Your task to perform on an android device: read, delete, or share a saved page in the chrome app Image 0: 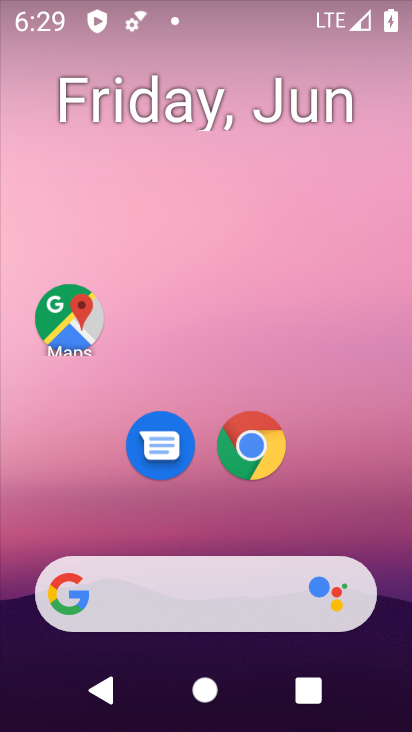
Step 0: click (239, 457)
Your task to perform on an android device: read, delete, or share a saved page in the chrome app Image 1: 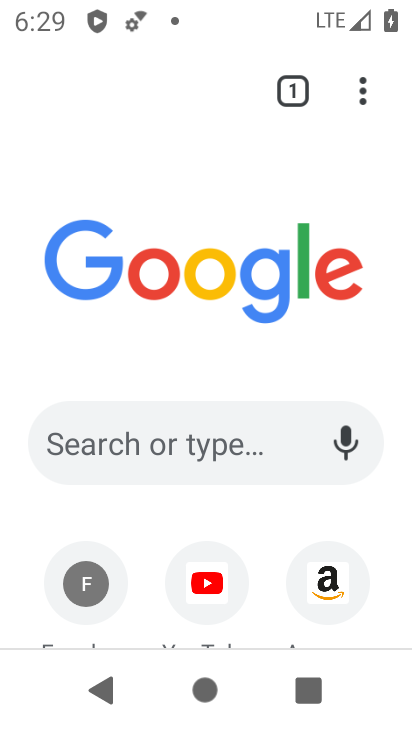
Step 1: click (357, 109)
Your task to perform on an android device: read, delete, or share a saved page in the chrome app Image 2: 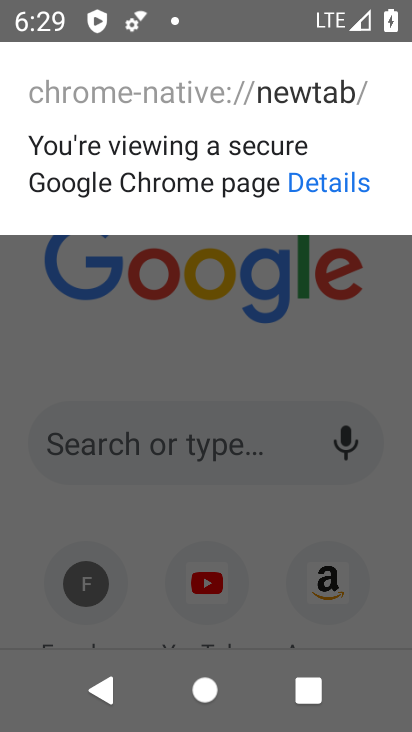
Step 2: click (359, 95)
Your task to perform on an android device: read, delete, or share a saved page in the chrome app Image 3: 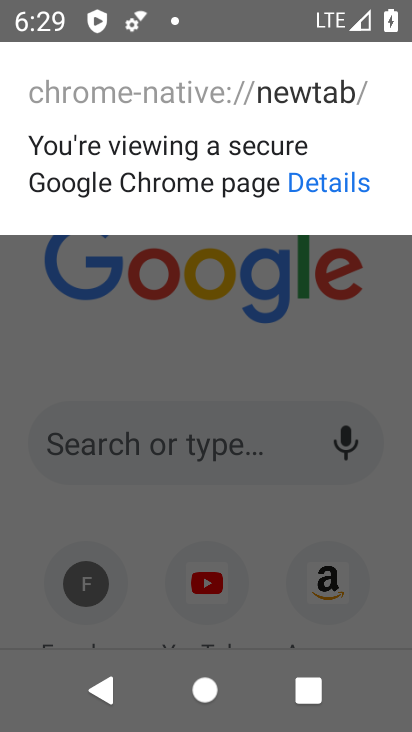
Step 3: click (314, 273)
Your task to perform on an android device: read, delete, or share a saved page in the chrome app Image 4: 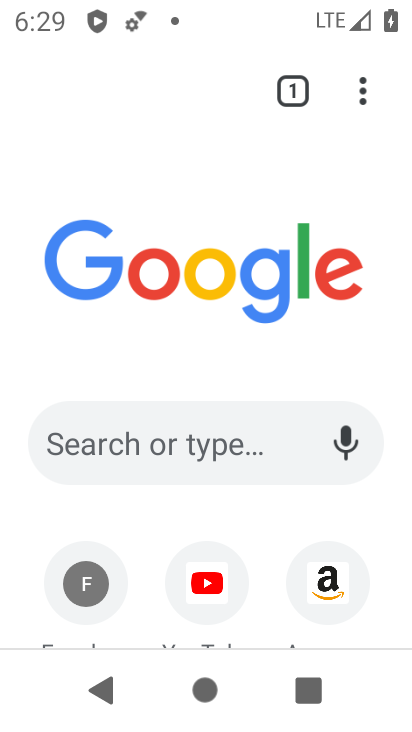
Step 4: click (365, 93)
Your task to perform on an android device: read, delete, or share a saved page in the chrome app Image 5: 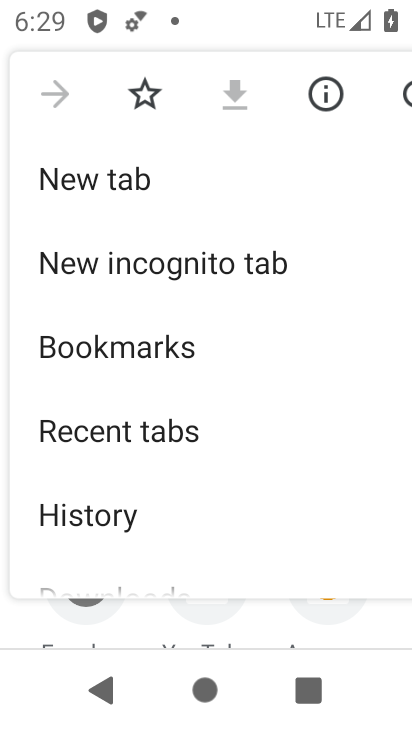
Step 5: task complete